Your task to perform on an android device: open device folders in google photos Image 0: 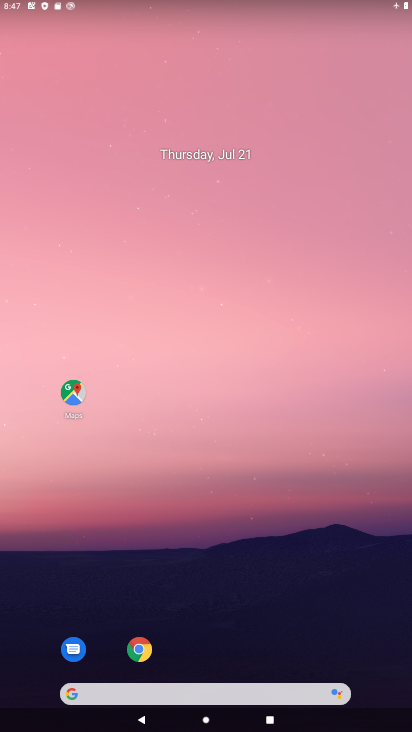
Step 0: drag from (202, 521) to (212, 142)
Your task to perform on an android device: open device folders in google photos Image 1: 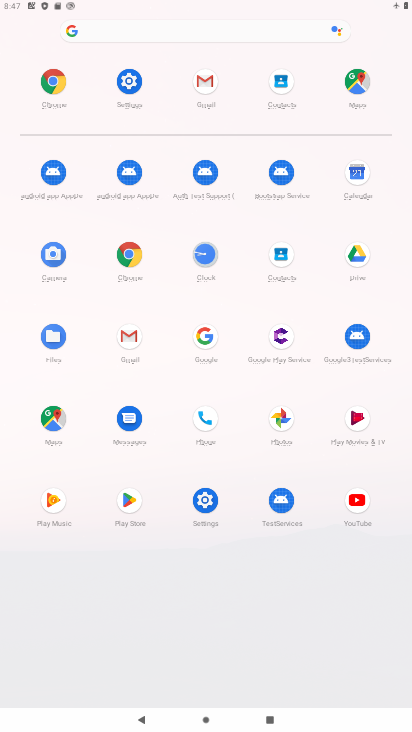
Step 1: click (286, 427)
Your task to perform on an android device: open device folders in google photos Image 2: 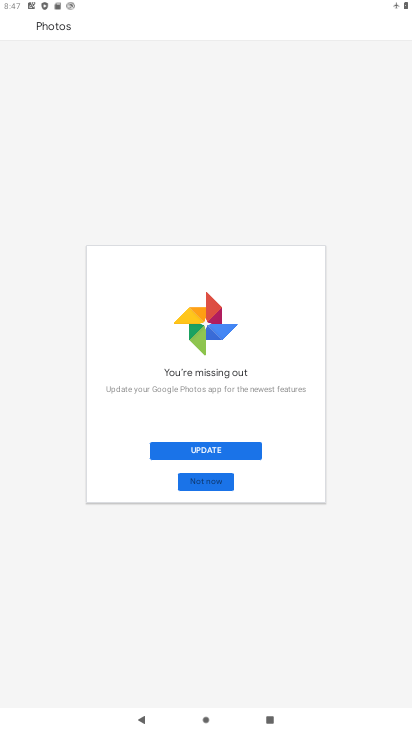
Step 2: click (201, 490)
Your task to perform on an android device: open device folders in google photos Image 3: 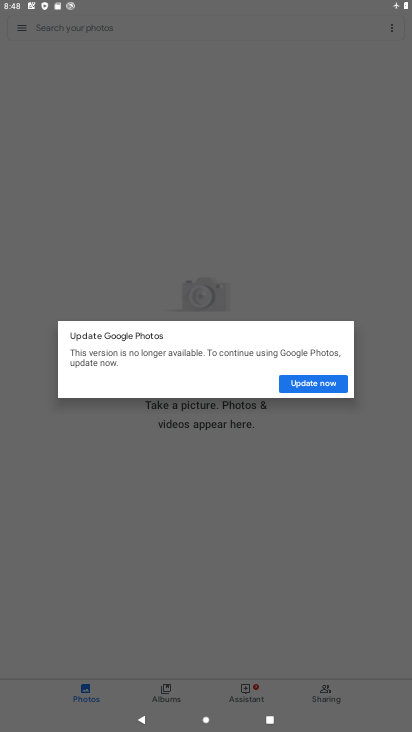
Step 3: click (312, 389)
Your task to perform on an android device: open device folders in google photos Image 4: 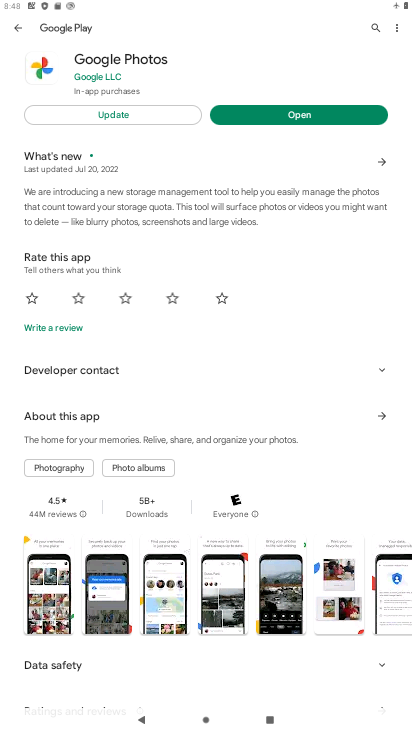
Step 4: click (325, 117)
Your task to perform on an android device: open device folders in google photos Image 5: 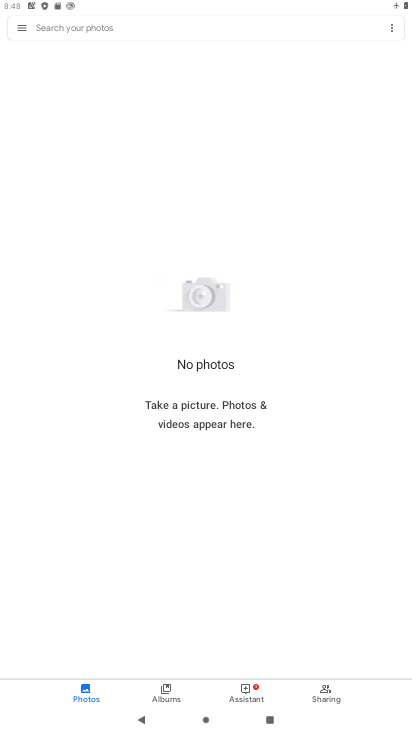
Step 5: click (28, 25)
Your task to perform on an android device: open device folders in google photos Image 6: 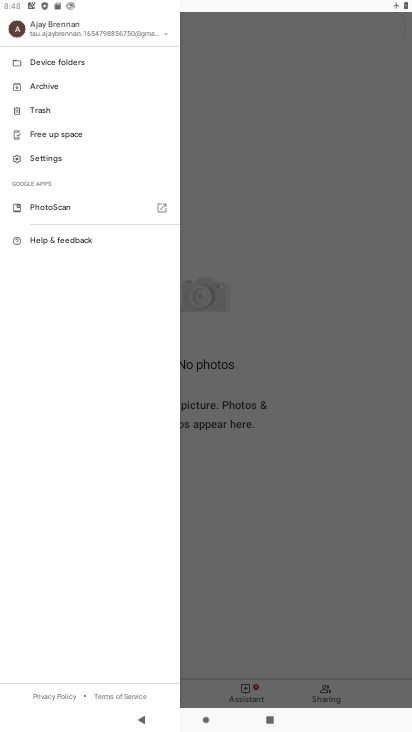
Step 6: click (80, 60)
Your task to perform on an android device: open device folders in google photos Image 7: 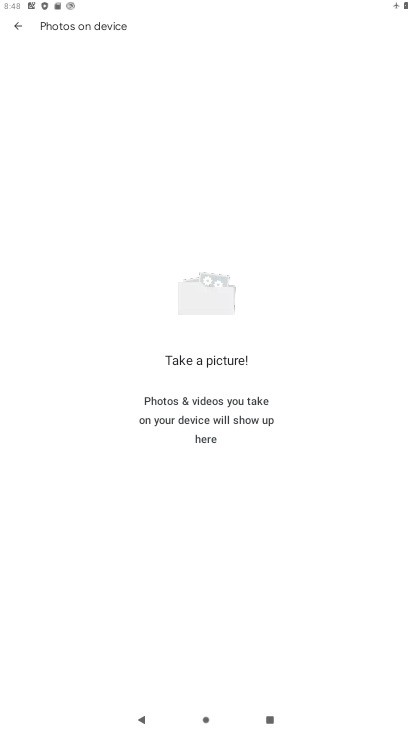
Step 7: task complete